Your task to perform on an android device: turn notification dots on Image 0: 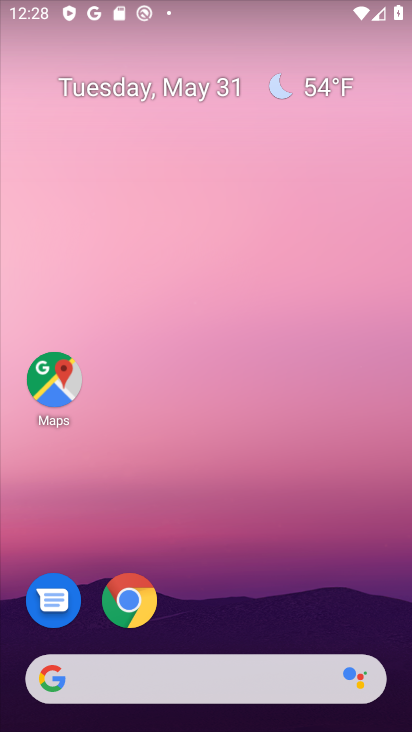
Step 0: drag from (230, 649) to (215, 28)
Your task to perform on an android device: turn notification dots on Image 1: 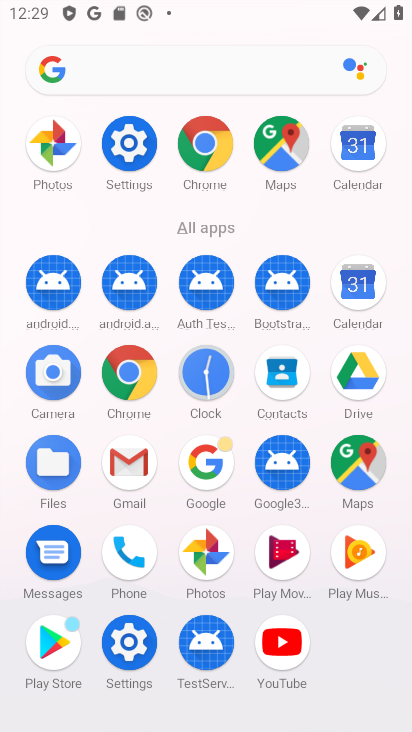
Step 1: click (119, 133)
Your task to perform on an android device: turn notification dots on Image 2: 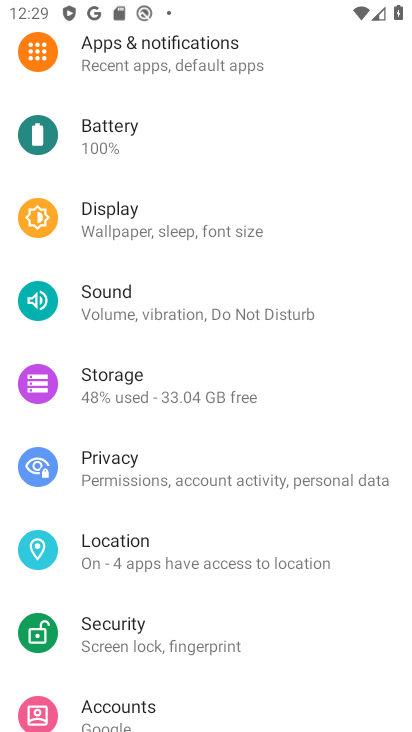
Step 2: click (182, 72)
Your task to perform on an android device: turn notification dots on Image 3: 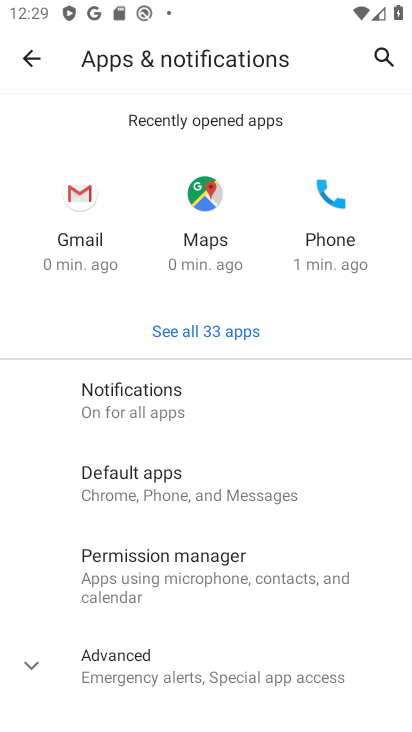
Step 3: click (159, 391)
Your task to perform on an android device: turn notification dots on Image 4: 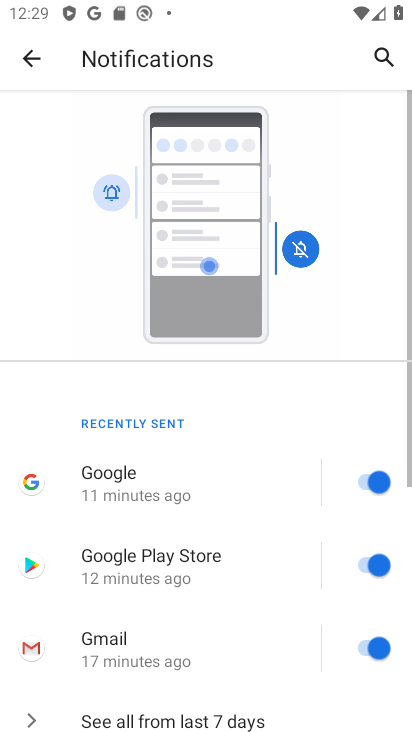
Step 4: drag from (234, 643) to (210, 92)
Your task to perform on an android device: turn notification dots on Image 5: 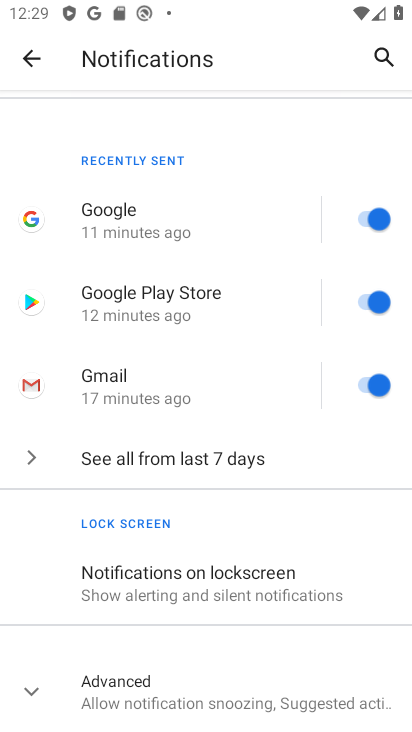
Step 5: click (258, 669)
Your task to perform on an android device: turn notification dots on Image 6: 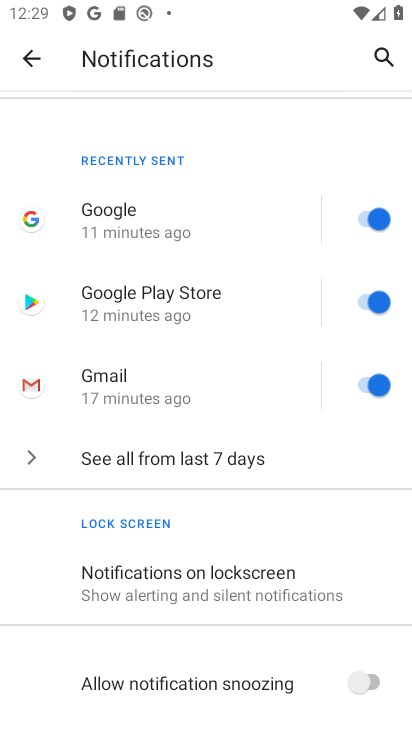
Step 6: task complete